Your task to perform on an android device: Add alienware aurora to the cart on ebay, then select checkout. Image 0: 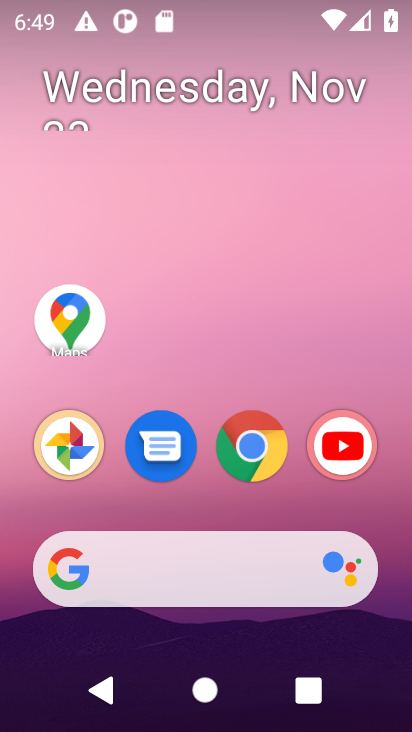
Step 0: click (213, 589)
Your task to perform on an android device: Add alienware aurora to the cart on ebay, then select checkout. Image 1: 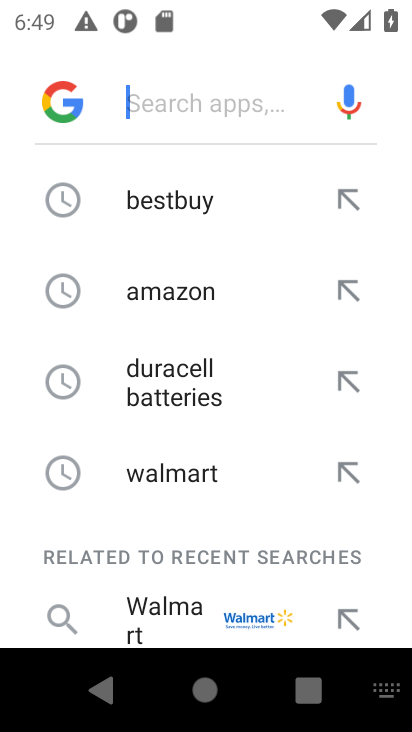
Step 1: type "ebay.com"
Your task to perform on an android device: Add alienware aurora to the cart on ebay, then select checkout. Image 2: 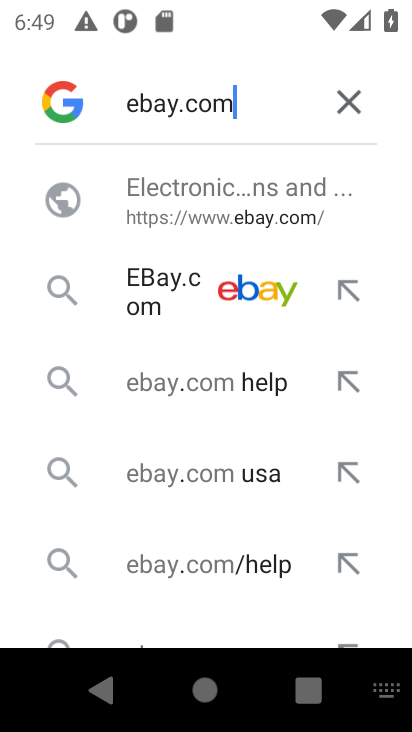
Step 2: click (208, 265)
Your task to perform on an android device: Add alienware aurora to the cart on ebay, then select checkout. Image 3: 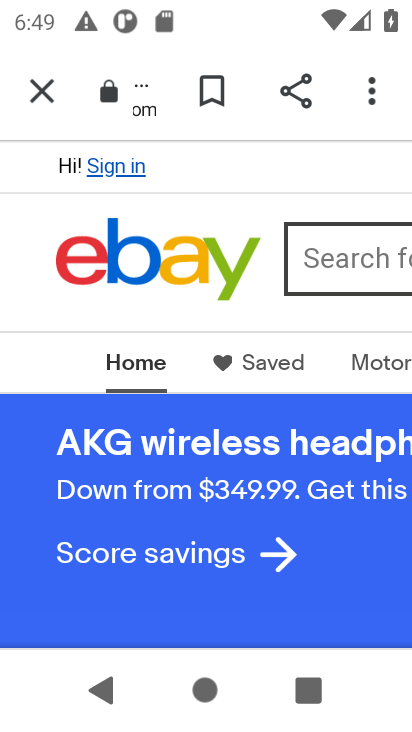
Step 3: click (316, 264)
Your task to perform on an android device: Add alienware aurora to the cart on ebay, then select checkout. Image 4: 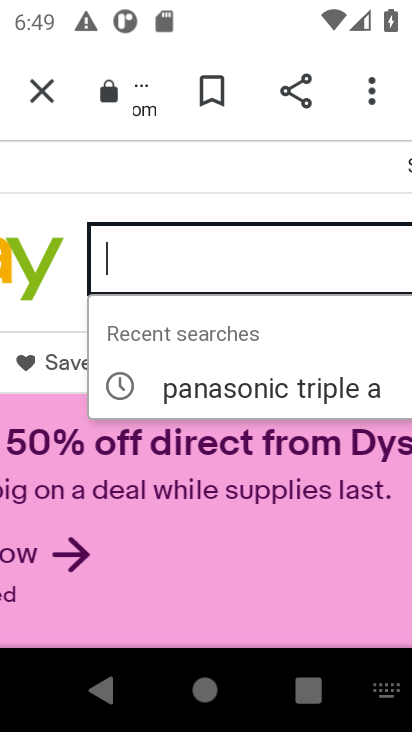
Step 4: type "alienware aurora"
Your task to perform on an android device: Add alienware aurora to the cart on ebay, then select checkout. Image 5: 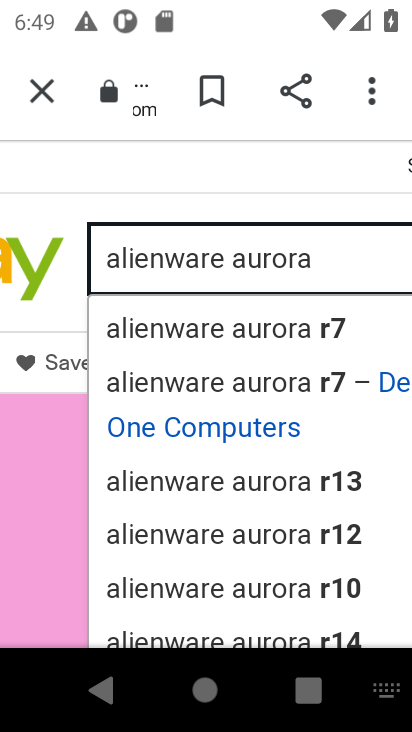
Step 5: click (307, 333)
Your task to perform on an android device: Add alienware aurora to the cart on ebay, then select checkout. Image 6: 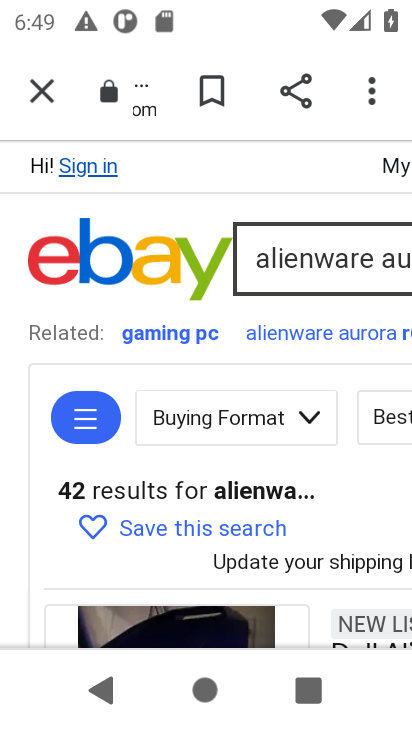
Step 6: drag from (334, 507) to (346, 225)
Your task to perform on an android device: Add alienware aurora to the cart on ebay, then select checkout. Image 7: 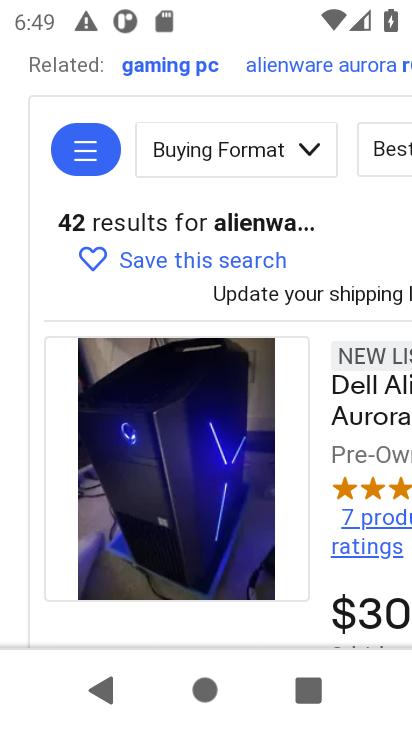
Step 7: drag from (299, 609) to (307, 203)
Your task to perform on an android device: Add alienware aurora to the cart on ebay, then select checkout. Image 8: 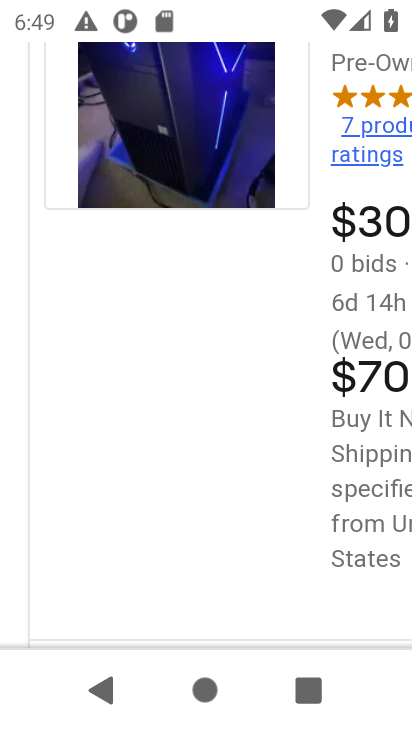
Step 8: click (379, 63)
Your task to perform on an android device: Add alienware aurora to the cart on ebay, then select checkout. Image 9: 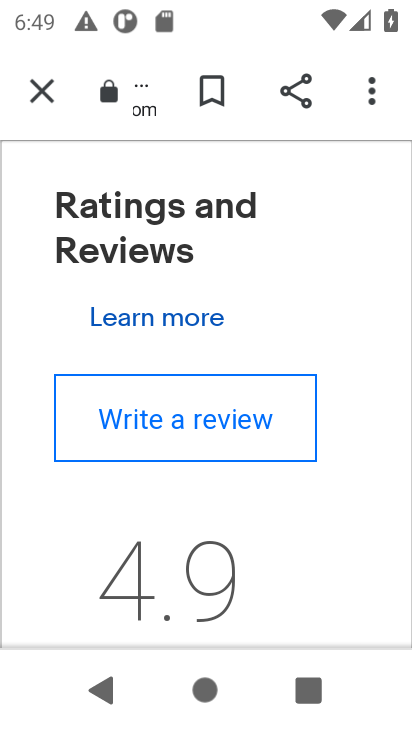
Step 9: drag from (224, 539) to (283, 98)
Your task to perform on an android device: Add alienware aurora to the cart on ebay, then select checkout. Image 10: 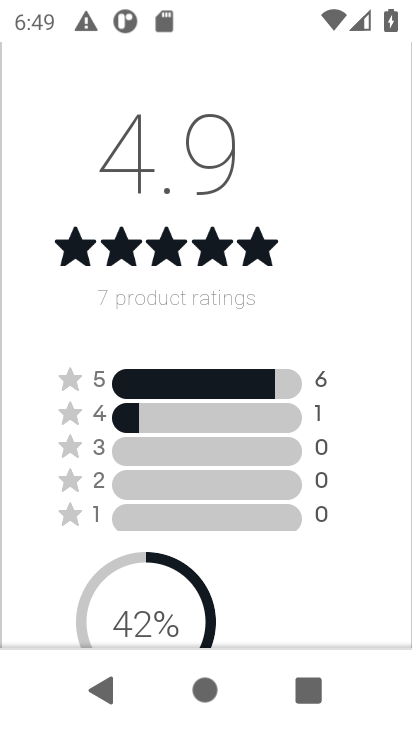
Step 10: drag from (288, 249) to (368, 729)
Your task to perform on an android device: Add alienware aurora to the cart on ebay, then select checkout. Image 11: 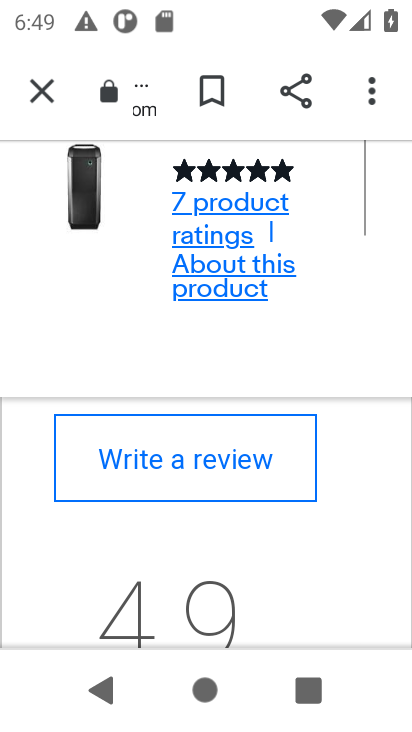
Step 11: drag from (340, 342) to (345, 710)
Your task to perform on an android device: Add alienware aurora to the cart on ebay, then select checkout. Image 12: 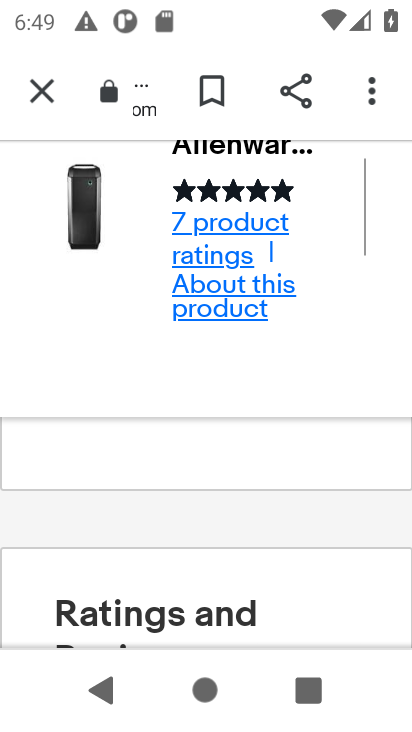
Step 12: drag from (323, 319) to (304, 648)
Your task to perform on an android device: Add alienware aurora to the cart on ebay, then select checkout. Image 13: 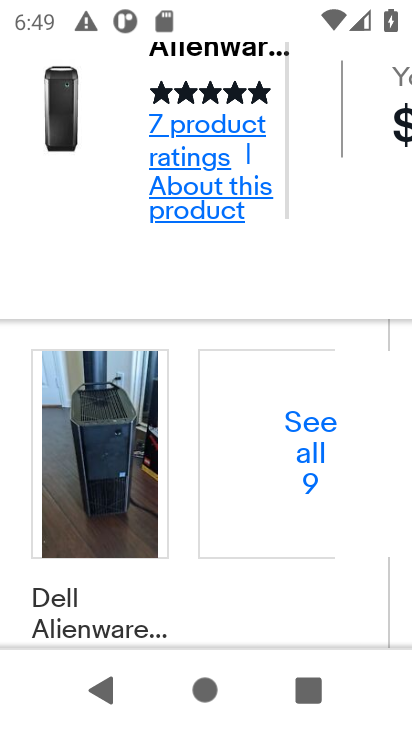
Step 13: click (227, 299)
Your task to perform on an android device: Add alienware aurora to the cart on ebay, then select checkout. Image 14: 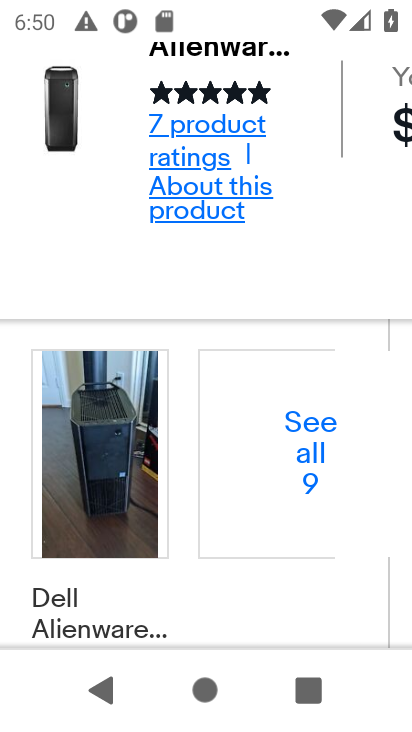
Step 14: task complete